Your task to perform on an android device: check storage Image 0: 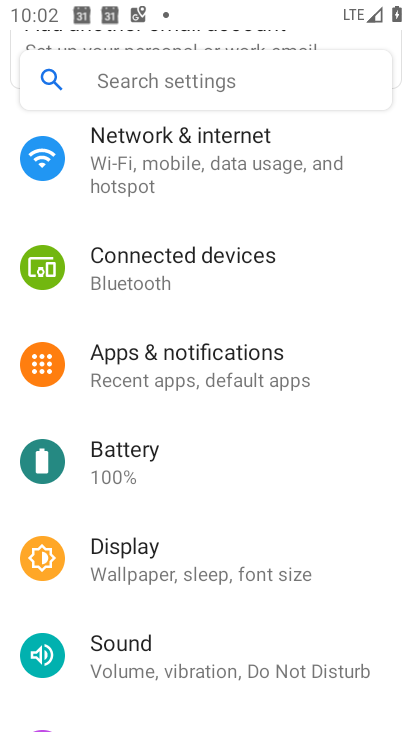
Step 0: drag from (189, 654) to (184, 256)
Your task to perform on an android device: check storage Image 1: 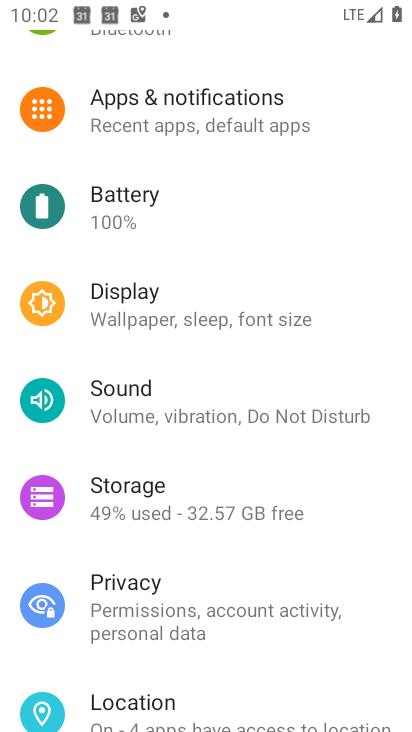
Step 1: click (214, 517)
Your task to perform on an android device: check storage Image 2: 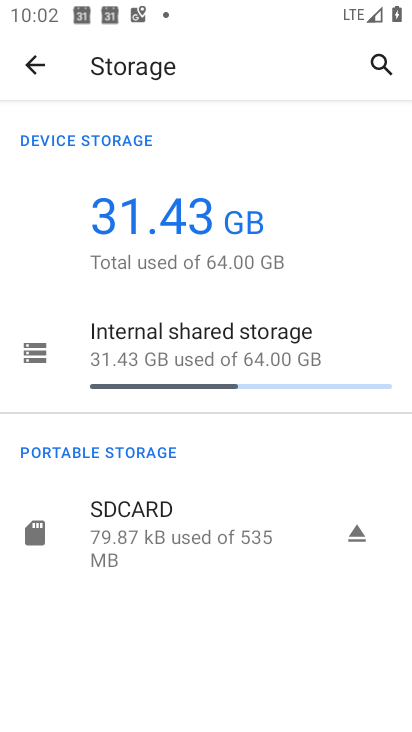
Step 2: task complete